Your task to perform on an android device: Turn off the flashlight Image 0: 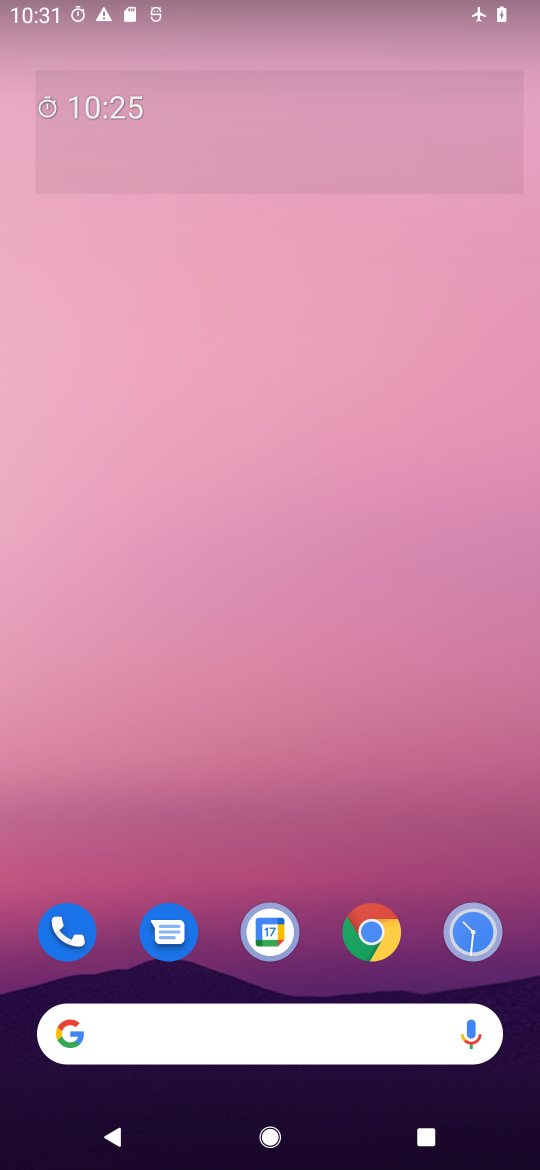
Step 0: drag from (259, 851) to (229, 179)
Your task to perform on an android device: Turn off the flashlight Image 1: 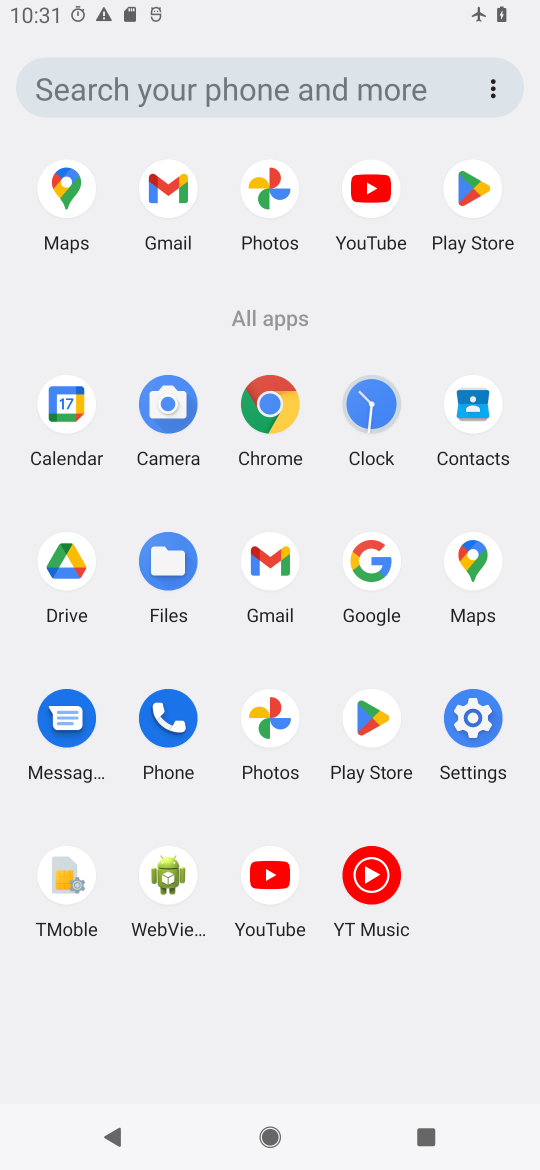
Step 1: click (470, 731)
Your task to perform on an android device: Turn off the flashlight Image 2: 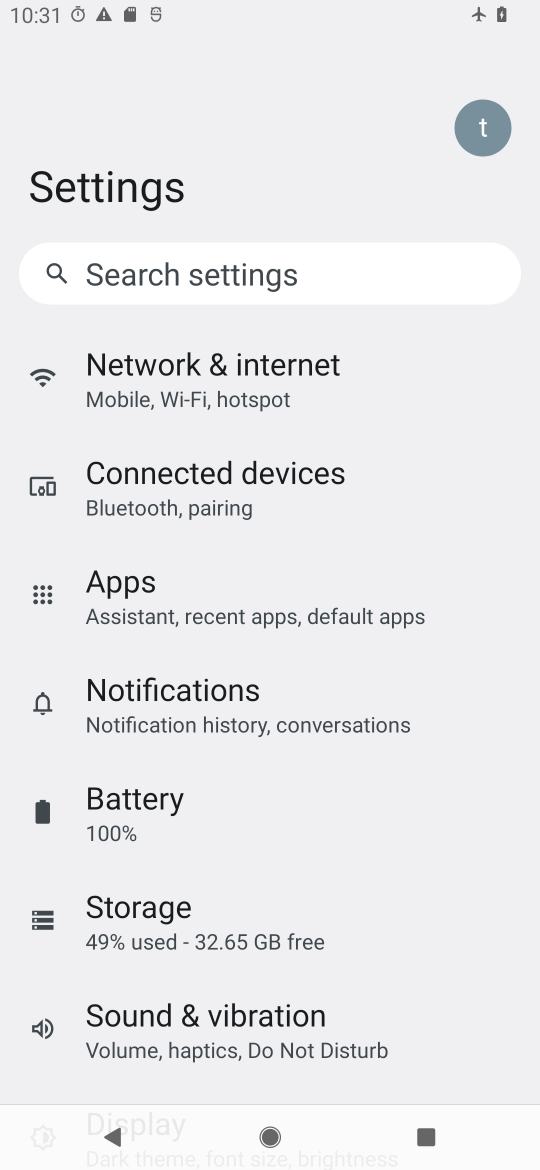
Step 2: task complete